Your task to perform on an android device: search for starred emails in the gmail app Image 0: 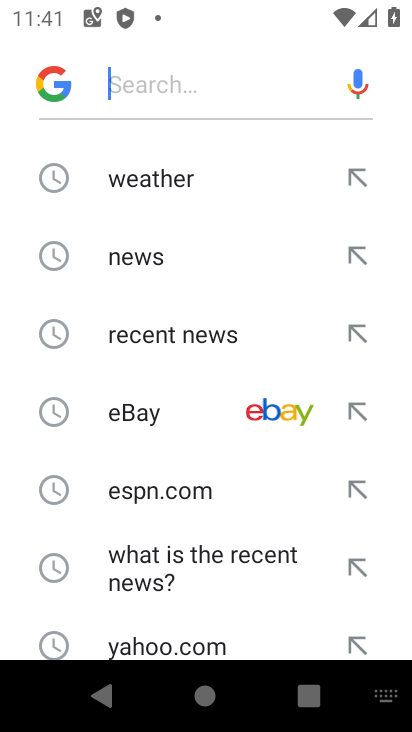
Step 0: press home button
Your task to perform on an android device: search for starred emails in the gmail app Image 1: 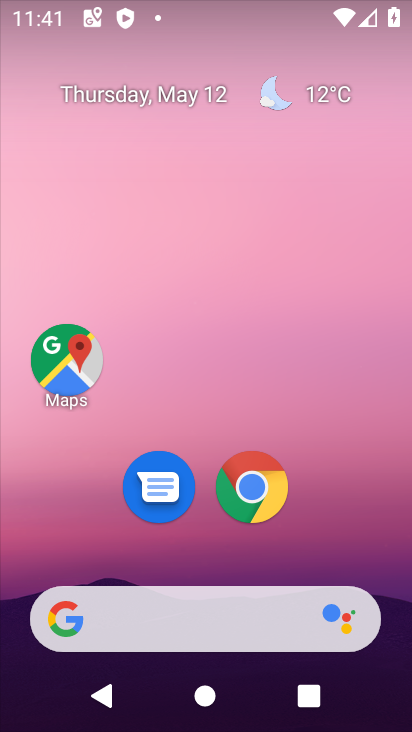
Step 1: drag from (380, 546) to (387, 22)
Your task to perform on an android device: search for starred emails in the gmail app Image 2: 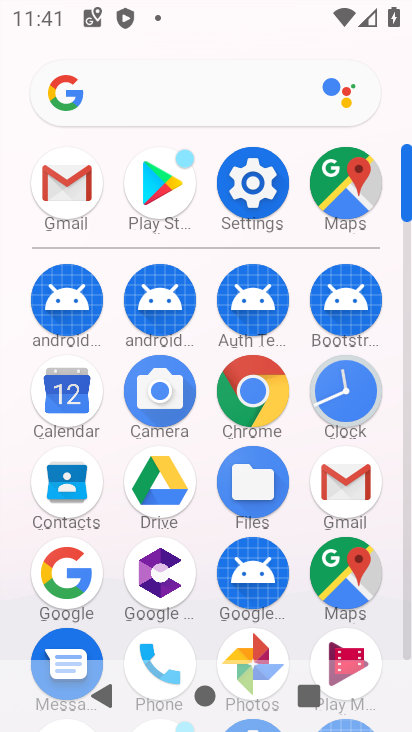
Step 2: click (68, 198)
Your task to perform on an android device: search for starred emails in the gmail app Image 3: 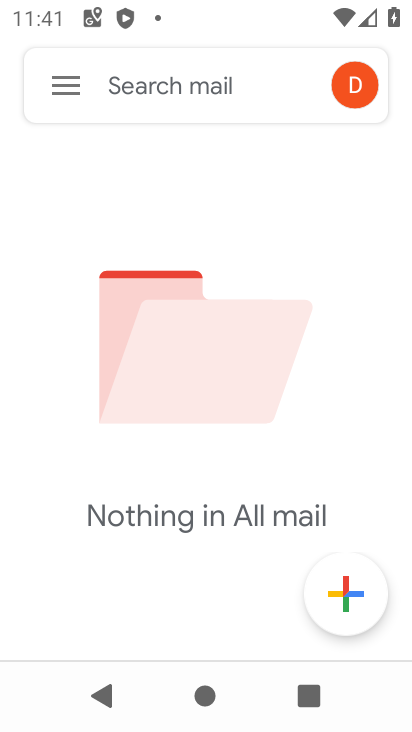
Step 3: click (49, 96)
Your task to perform on an android device: search for starred emails in the gmail app Image 4: 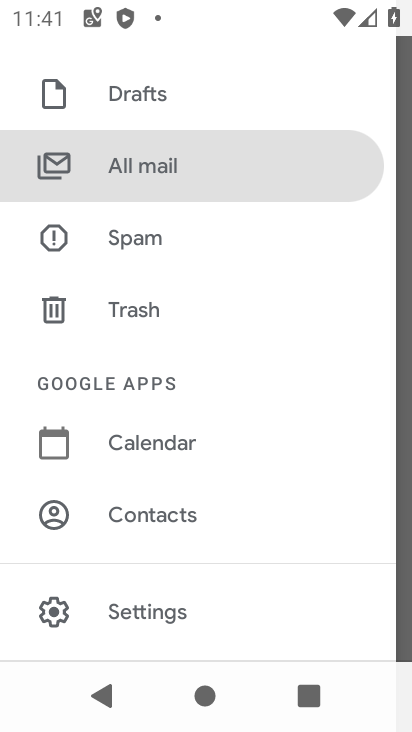
Step 4: drag from (230, 307) to (255, 691)
Your task to perform on an android device: search for starred emails in the gmail app Image 5: 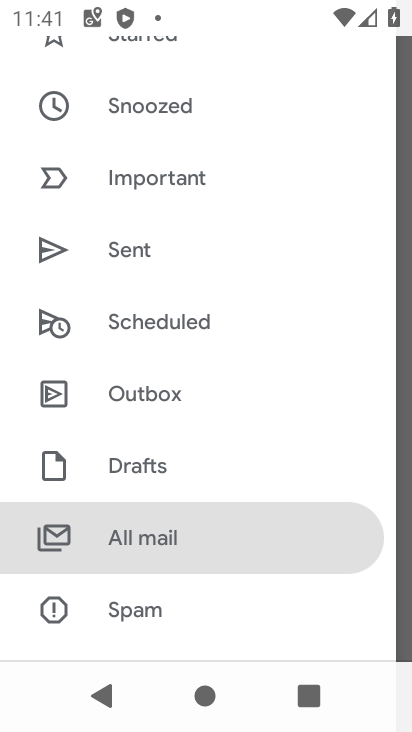
Step 5: drag from (256, 238) to (267, 594)
Your task to perform on an android device: search for starred emails in the gmail app Image 6: 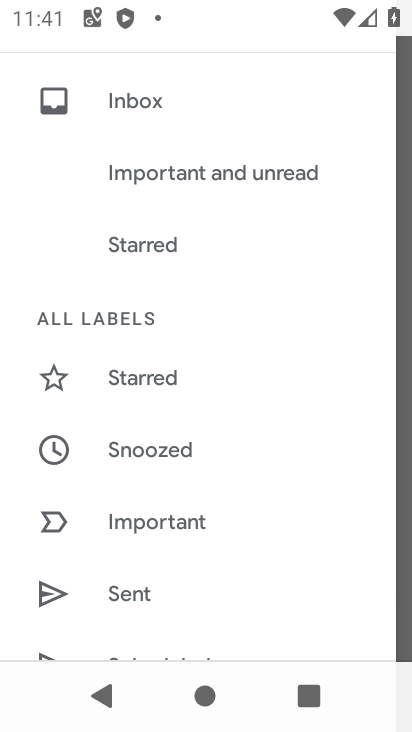
Step 6: click (146, 385)
Your task to perform on an android device: search for starred emails in the gmail app Image 7: 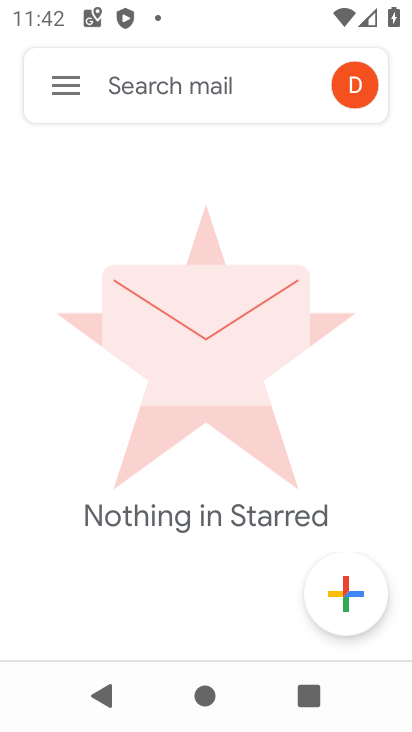
Step 7: task complete